Your task to perform on an android device: Open Yahoo.com Image 0: 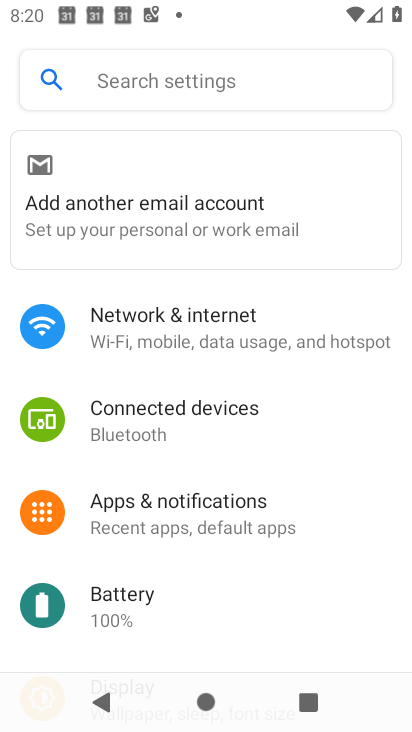
Step 0: press home button
Your task to perform on an android device: Open Yahoo.com Image 1: 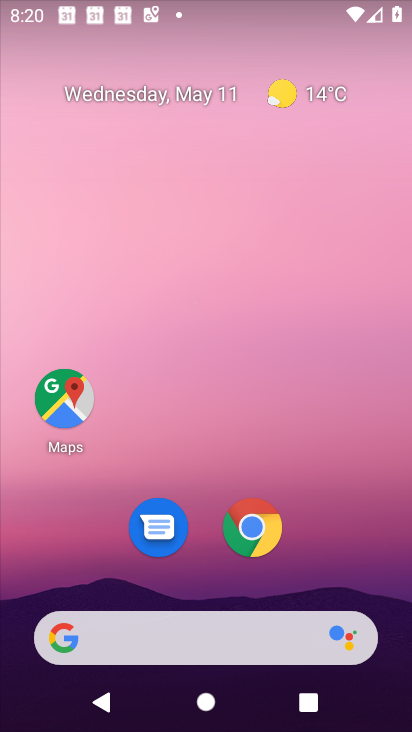
Step 1: click (263, 527)
Your task to perform on an android device: Open Yahoo.com Image 2: 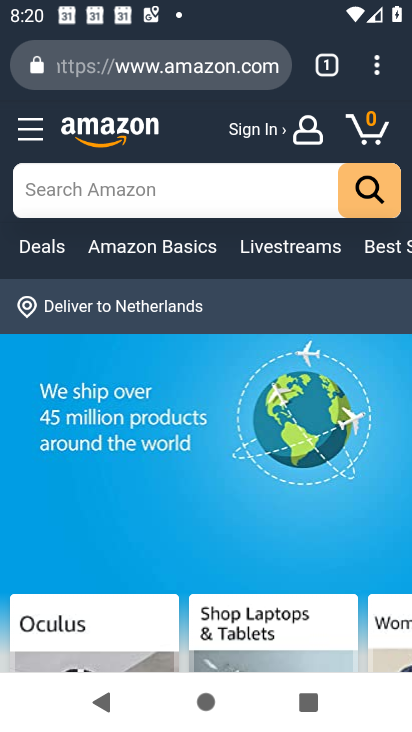
Step 2: click (319, 55)
Your task to perform on an android device: Open Yahoo.com Image 3: 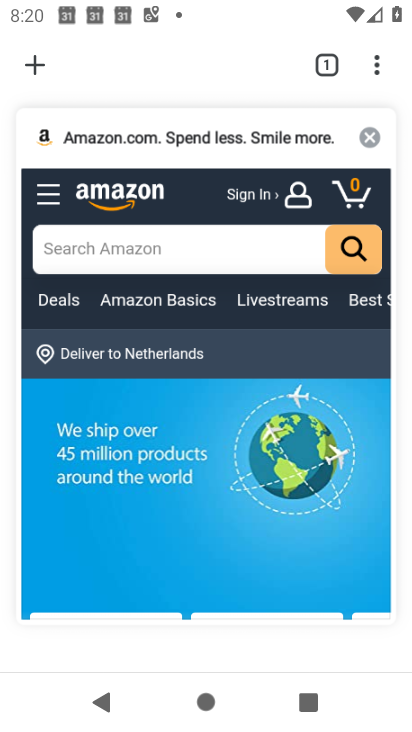
Step 3: click (35, 83)
Your task to perform on an android device: Open Yahoo.com Image 4: 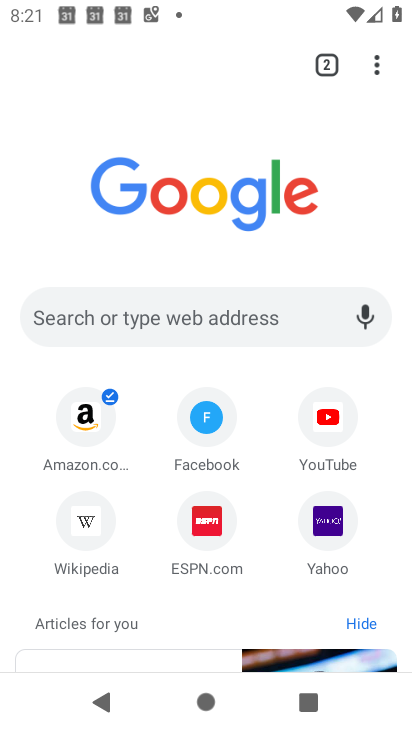
Step 4: click (334, 511)
Your task to perform on an android device: Open Yahoo.com Image 5: 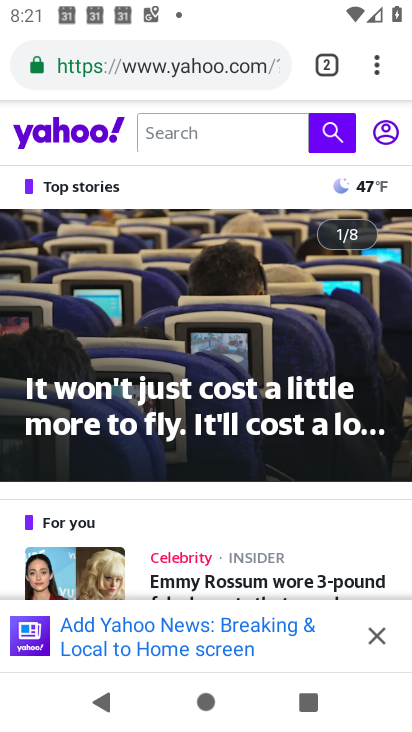
Step 5: task complete